Your task to perform on an android device: delete the emails in spam in the gmail app Image 0: 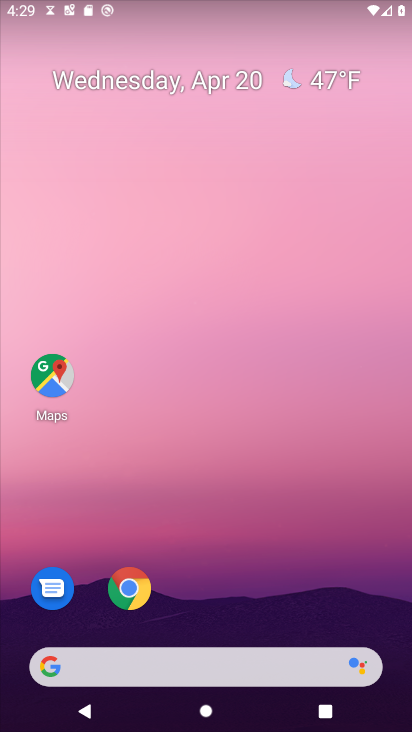
Step 0: drag from (331, 601) to (367, 34)
Your task to perform on an android device: delete the emails in spam in the gmail app Image 1: 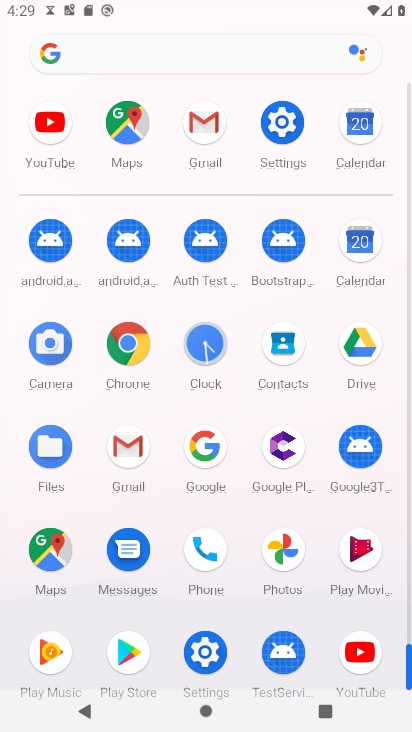
Step 1: click (206, 111)
Your task to perform on an android device: delete the emails in spam in the gmail app Image 2: 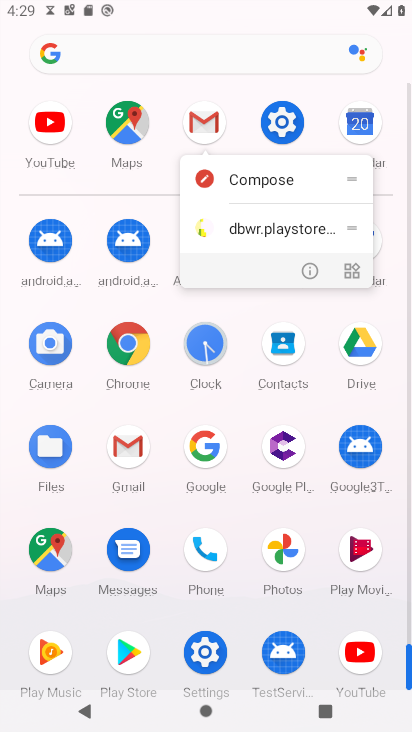
Step 2: click (206, 110)
Your task to perform on an android device: delete the emails in spam in the gmail app Image 3: 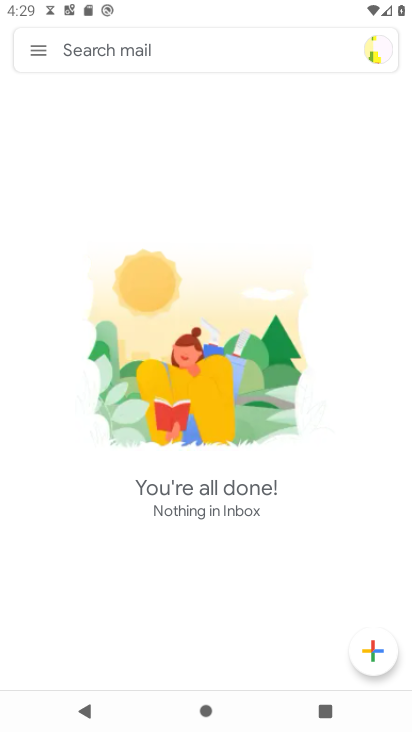
Step 3: click (41, 54)
Your task to perform on an android device: delete the emails in spam in the gmail app Image 4: 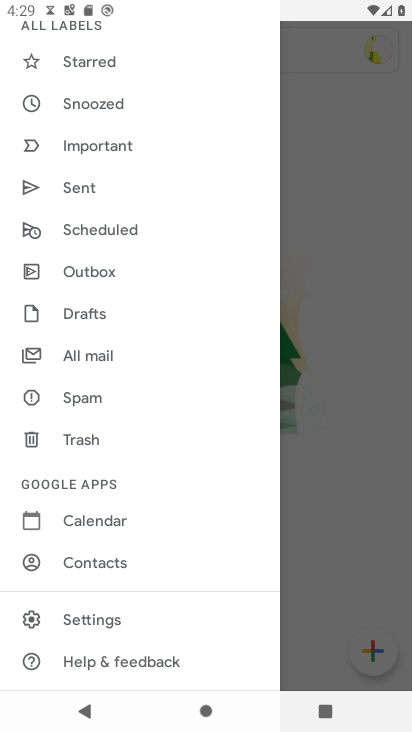
Step 4: click (111, 399)
Your task to perform on an android device: delete the emails in spam in the gmail app Image 5: 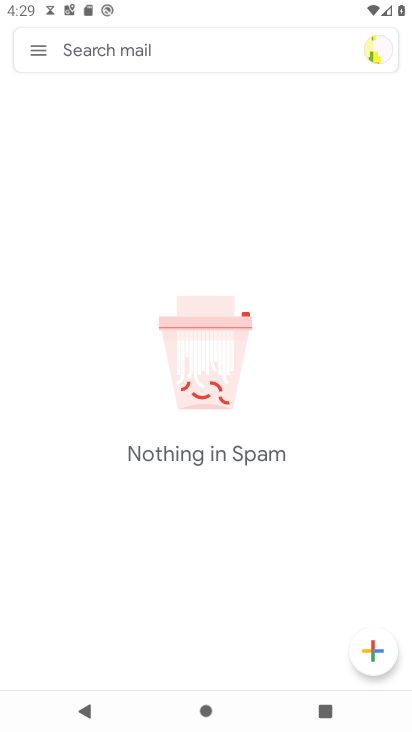
Step 5: task complete